Your task to perform on an android device: uninstall "PlayWell" Image 0: 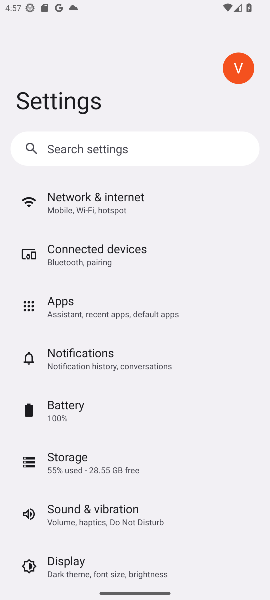
Step 0: press home button
Your task to perform on an android device: uninstall "PlayWell" Image 1: 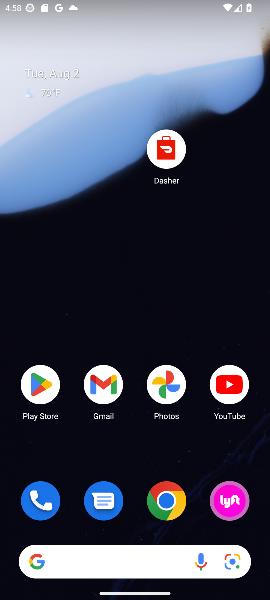
Step 1: click (53, 397)
Your task to perform on an android device: uninstall "PlayWell" Image 2: 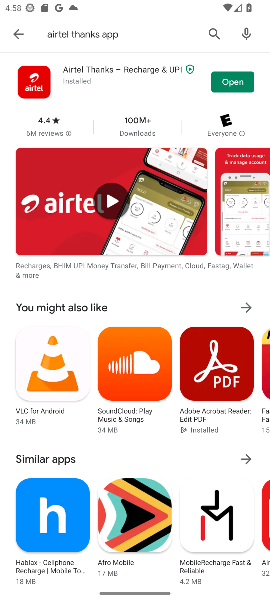
Step 2: click (215, 36)
Your task to perform on an android device: uninstall "PlayWell" Image 3: 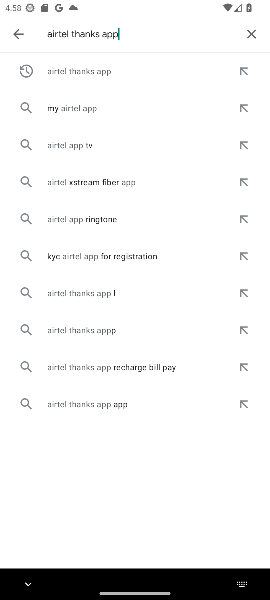
Step 3: click (256, 37)
Your task to perform on an android device: uninstall "PlayWell" Image 4: 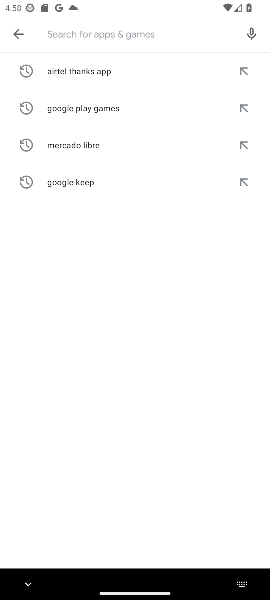
Step 4: type "PlayWell"
Your task to perform on an android device: uninstall "PlayWell" Image 5: 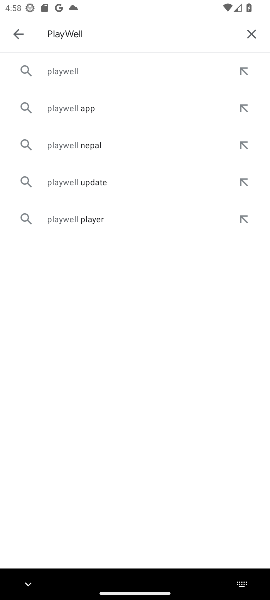
Step 5: click (59, 74)
Your task to perform on an android device: uninstall "PlayWell" Image 6: 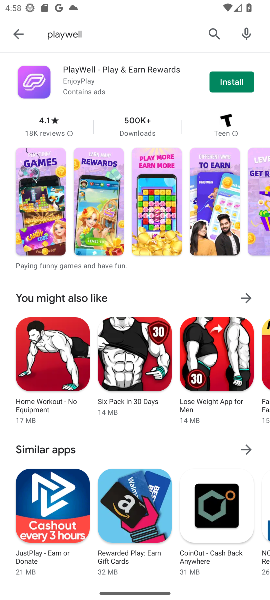
Step 6: task complete